Your task to perform on an android device: open a new tab in the chrome app Image 0: 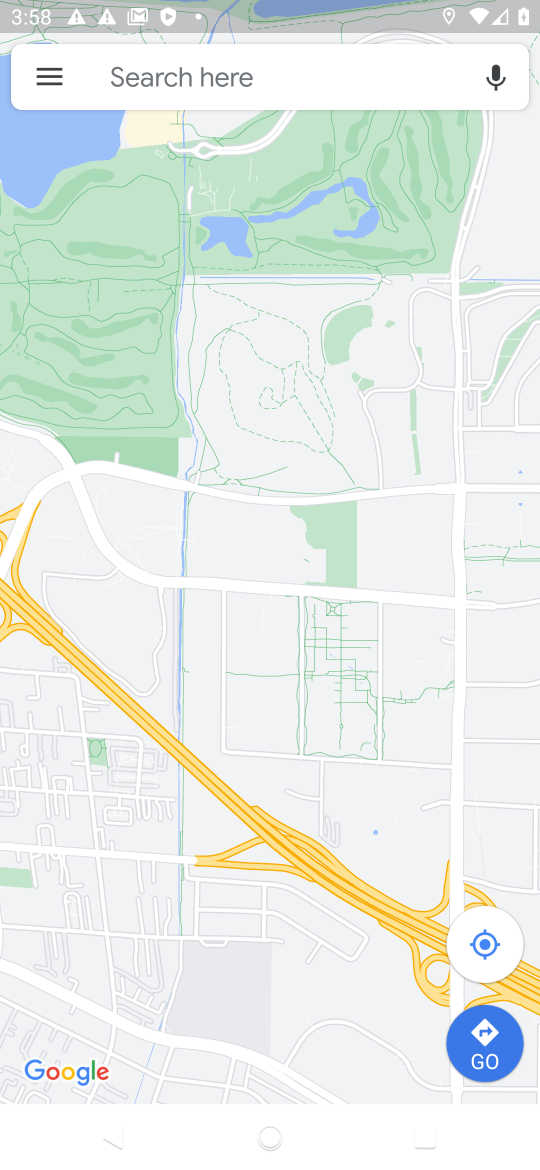
Step 0: press home button
Your task to perform on an android device: open a new tab in the chrome app Image 1: 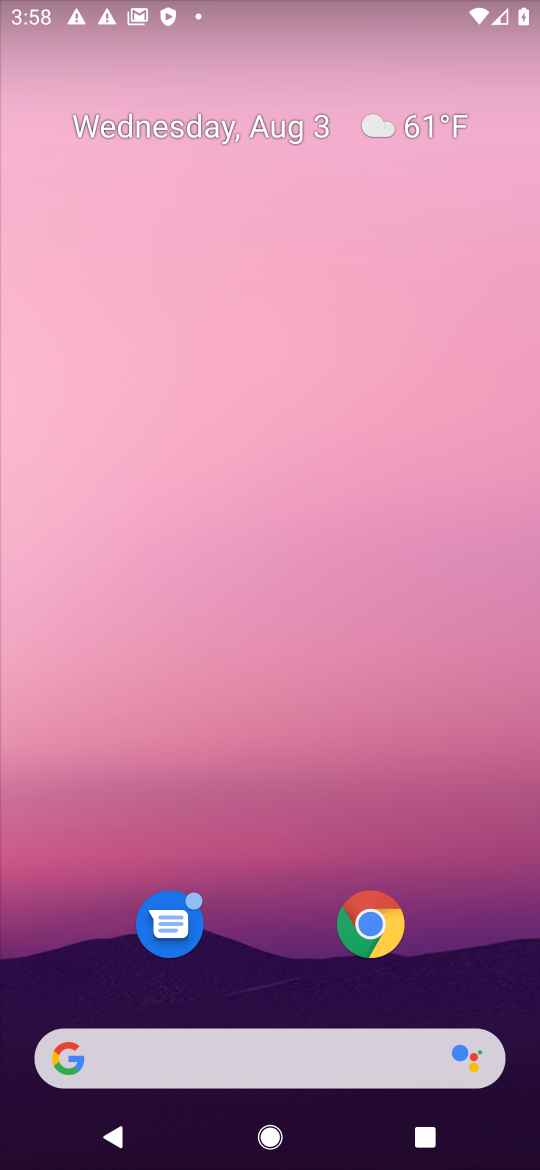
Step 1: click (346, 923)
Your task to perform on an android device: open a new tab in the chrome app Image 2: 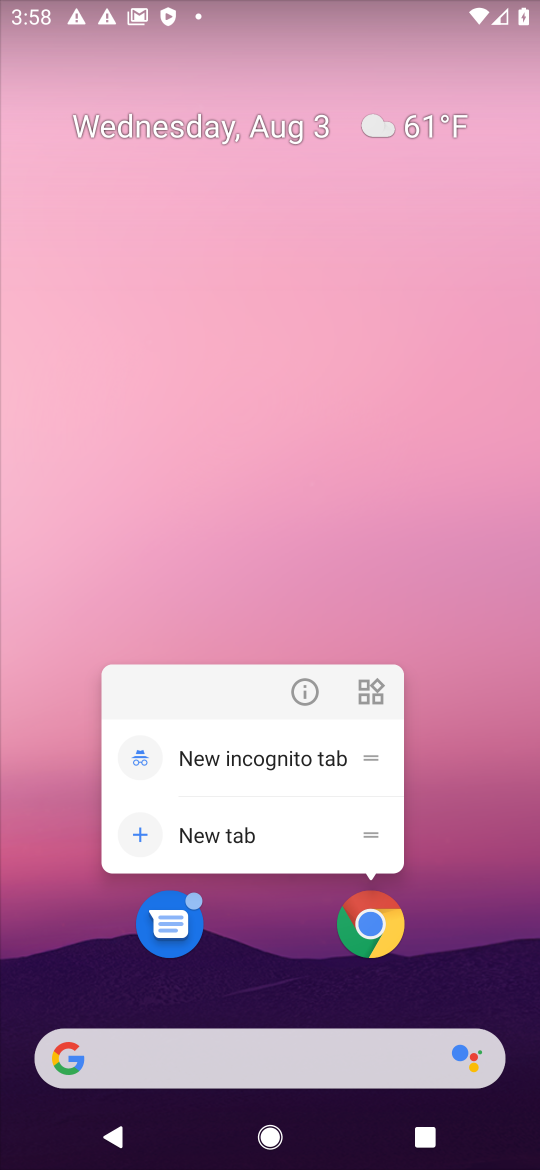
Step 2: click (346, 923)
Your task to perform on an android device: open a new tab in the chrome app Image 3: 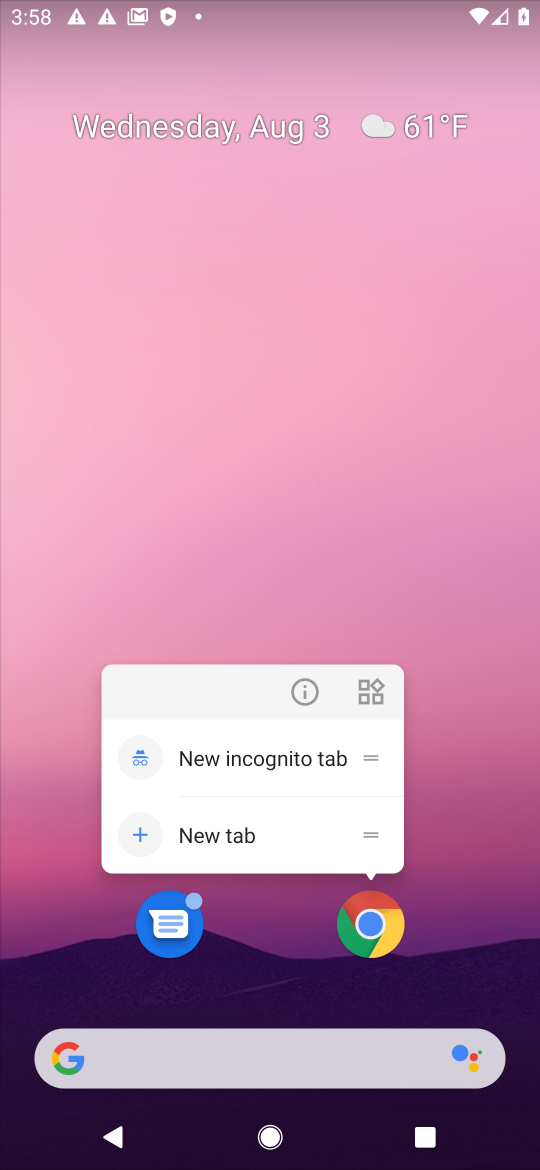
Step 3: click (346, 923)
Your task to perform on an android device: open a new tab in the chrome app Image 4: 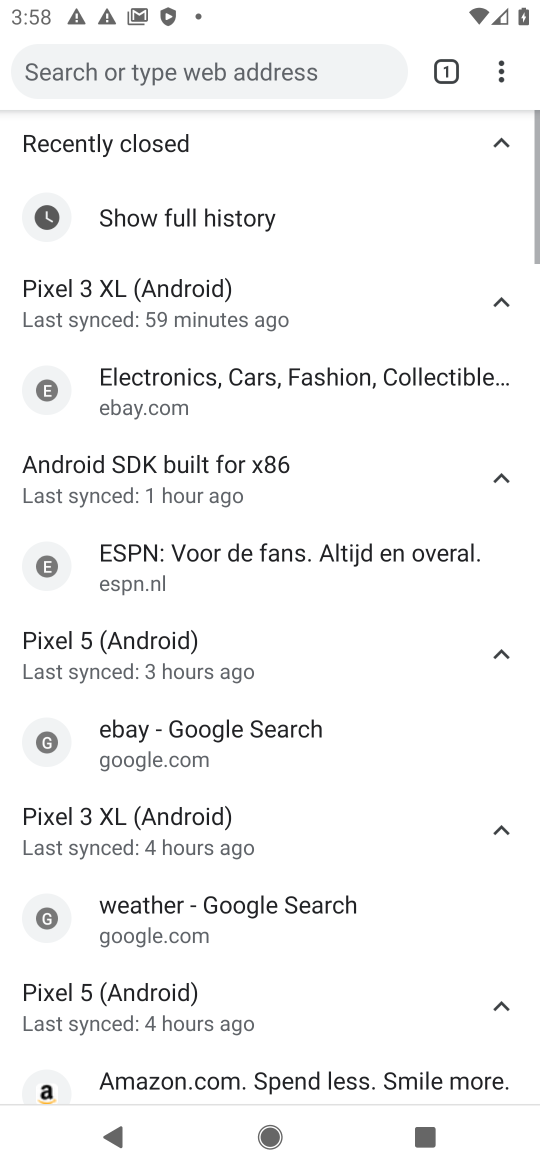
Step 4: click (438, 73)
Your task to perform on an android device: open a new tab in the chrome app Image 5: 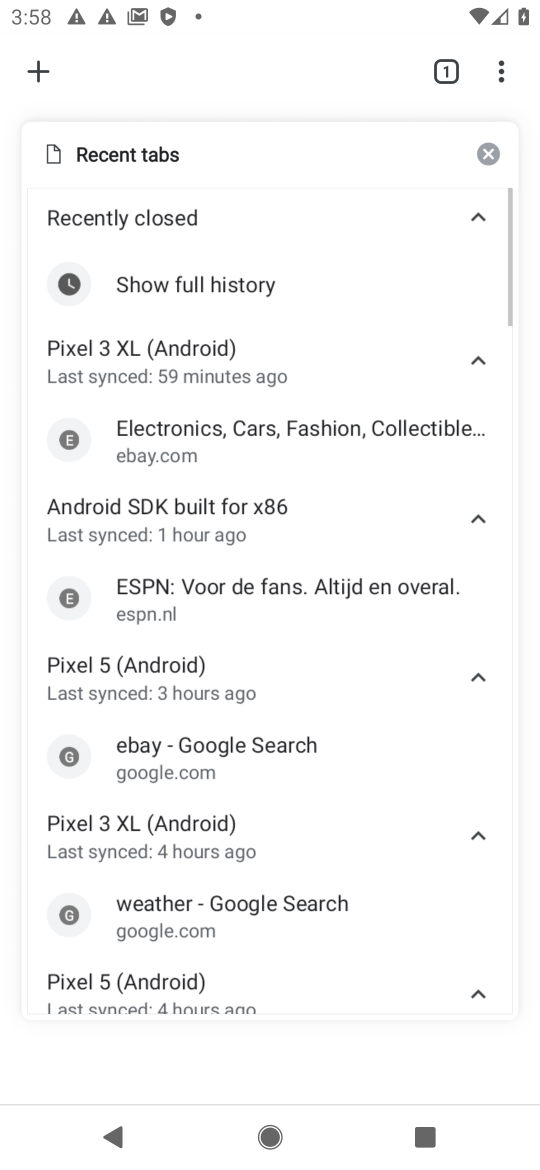
Step 5: click (42, 68)
Your task to perform on an android device: open a new tab in the chrome app Image 6: 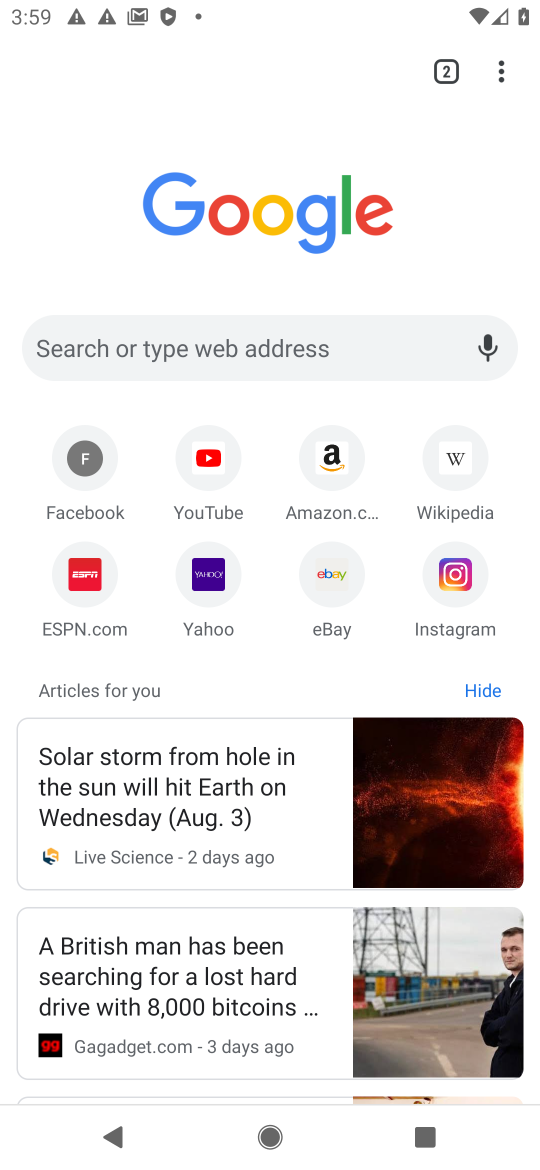
Step 6: task complete